Your task to perform on an android device: Open Maps and search for coffee Image 0: 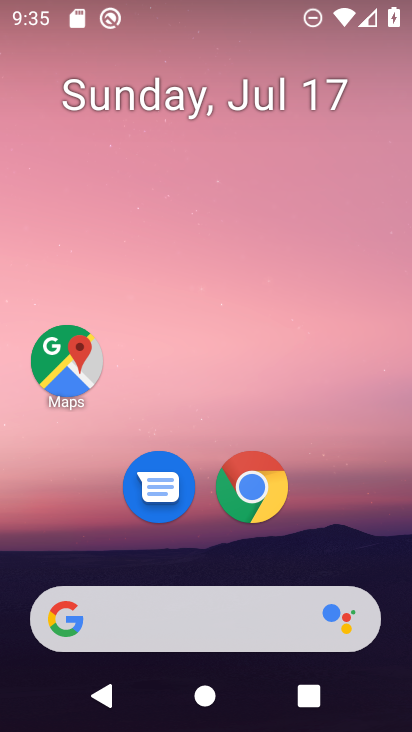
Step 0: press home button
Your task to perform on an android device: Open Maps and search for coffee Image 1: 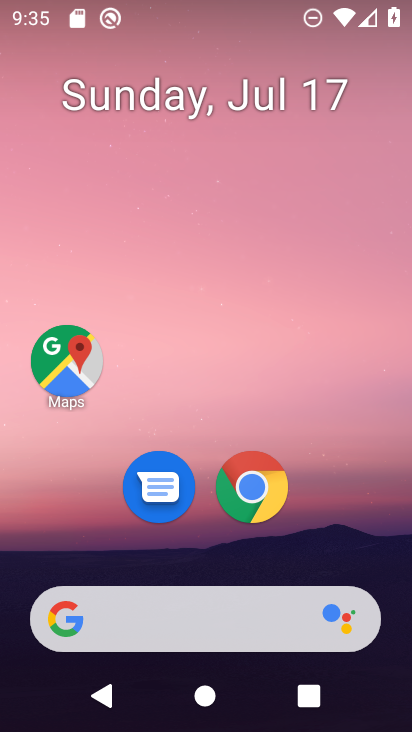
Step 1: drag from (333, 561) to (289, 2)
Your task to perform on an android device: Open Maps and search for coffee Image 2: 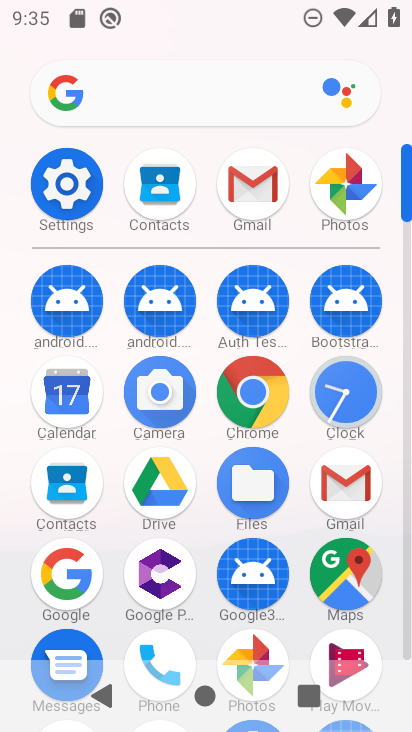
Step 2: click (355, 579)
Your task to perform on an android device: Open Maps and search for coffee Image 3: 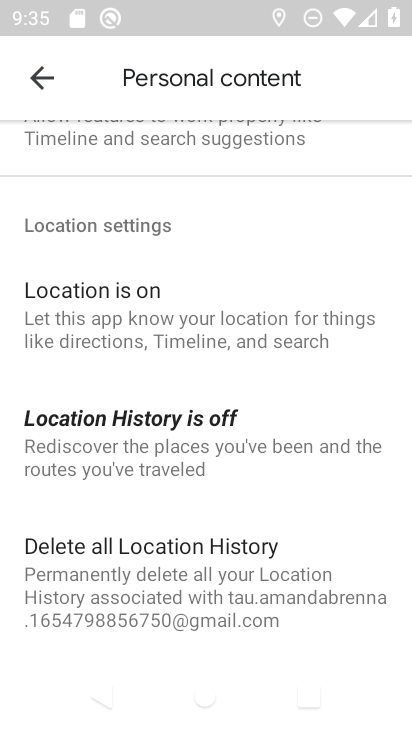
Step 3: click (16, 66)
Your task to perform on an android device: Open Maps and search for coffee Image 4: 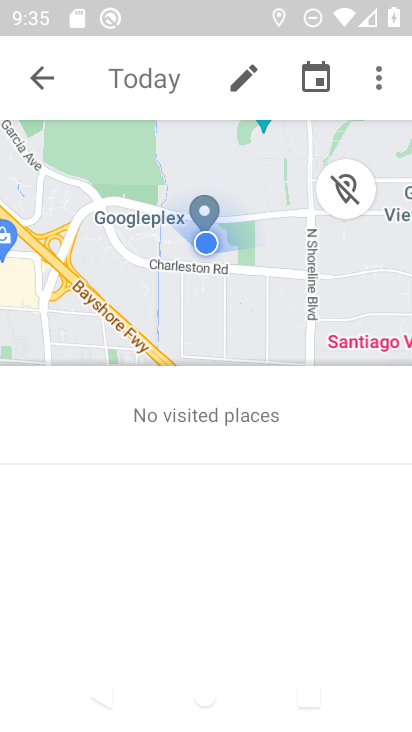
Step 4: click (172, 81)
Your task to perform on an android device: Open Maps and search for coffee Image 5: 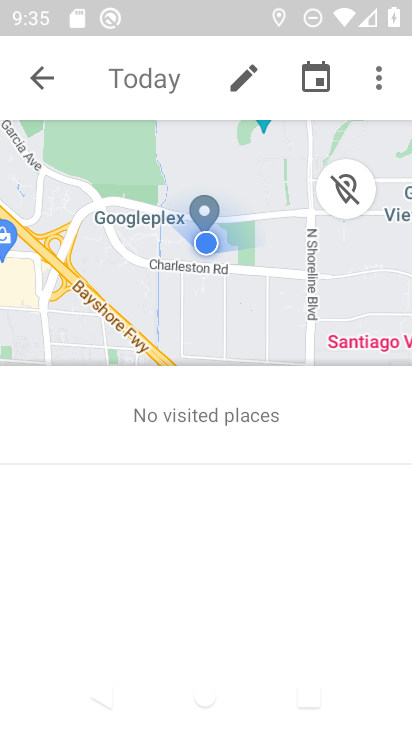
Step 5: click (180, 79)
Your task to perform on an android device: Open Maps and search for coffee Image 6: 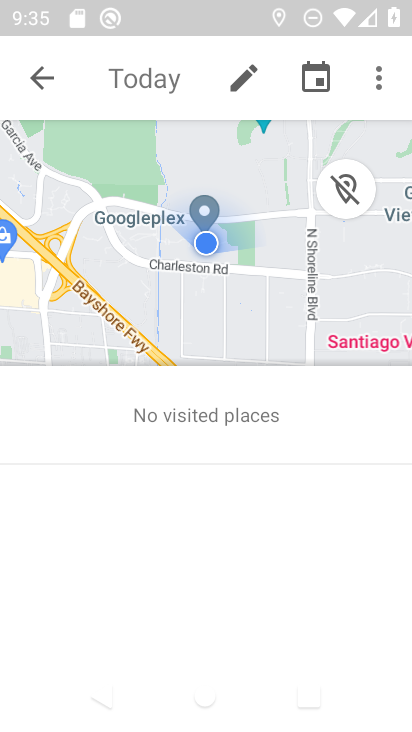
Step 6: click (132, 73)
Your task to perform on an android device: Open Maps and search for coffee Image 7: 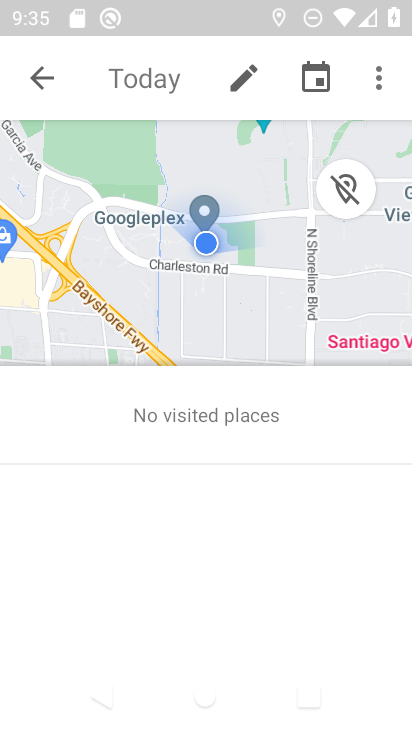
Step 7: click (31, 80)
Your task to perform on an android device: Open Maps and search for coffee Image 8: 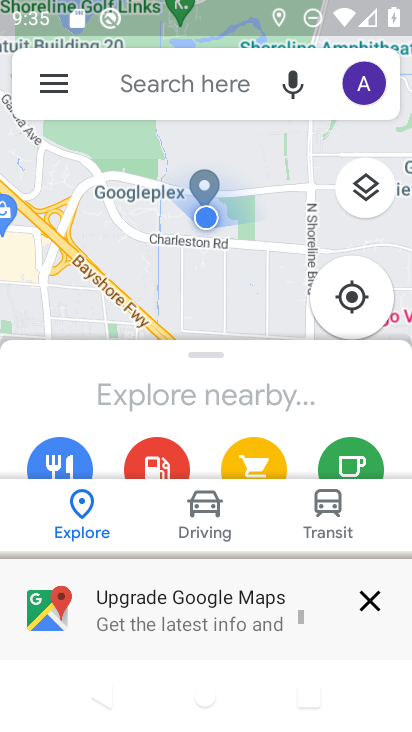
Step 8: click (237, 62)
Your task to perform on an android device: Open Maps and search for coffee Image 9: 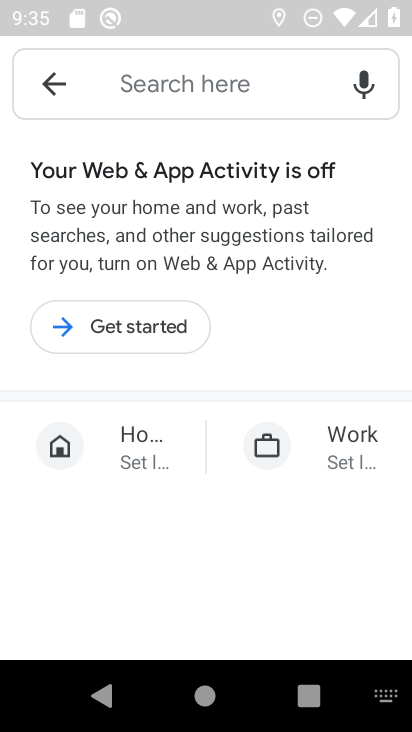
Step 9: click (146, 336)
Your task to perform on an android device: Open Maps and search for coffee Image 10: 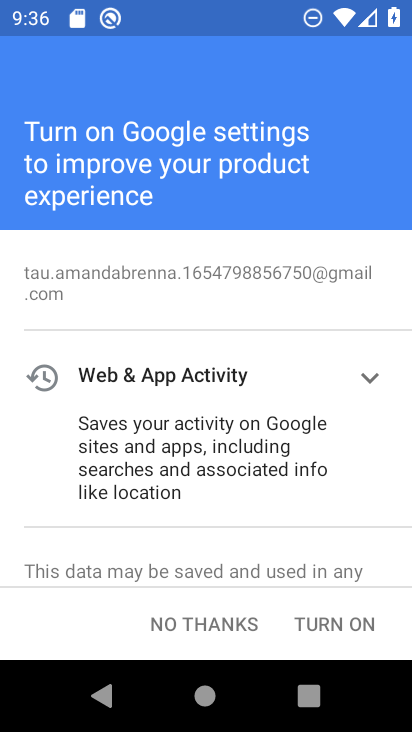
Step 10: click (353, 608)
Your task to perform on an android device: Open Maps and search for coffee Image 11: 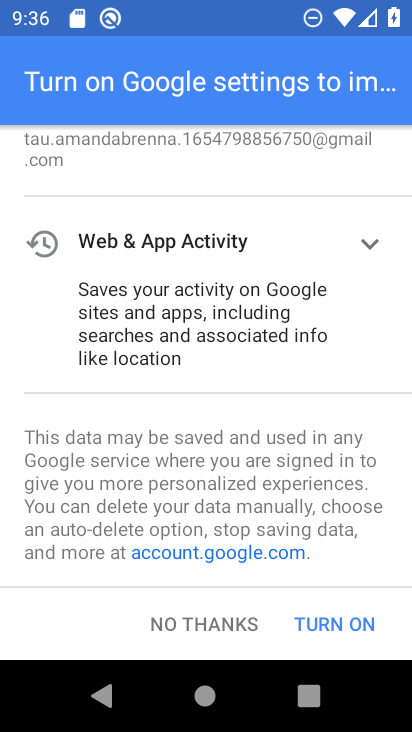
Step 11: click (310, 628)
Your task to perform on an android device: Open Maps and search for coffee Image 12: 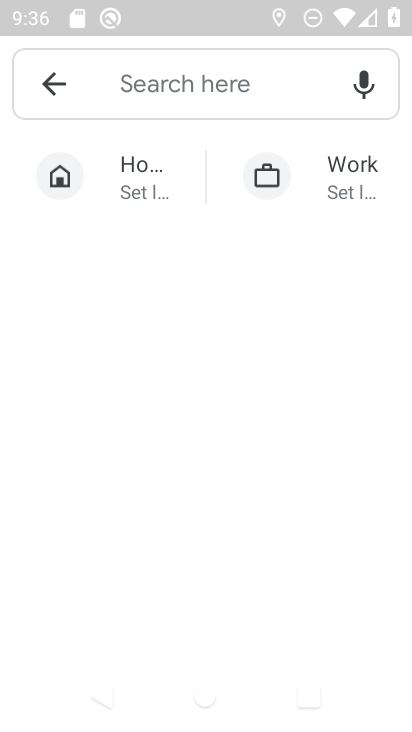
Step 12: click (227, 91)
Your task to perform on an android device: Open Maps and search for coffee Image 13: 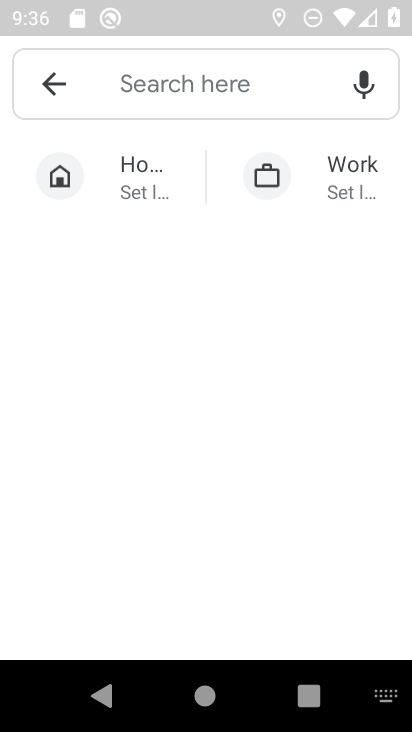
Step 13: type "coffee"
Your task to perform on an android device: Open Maps and search for coffee Image 14: 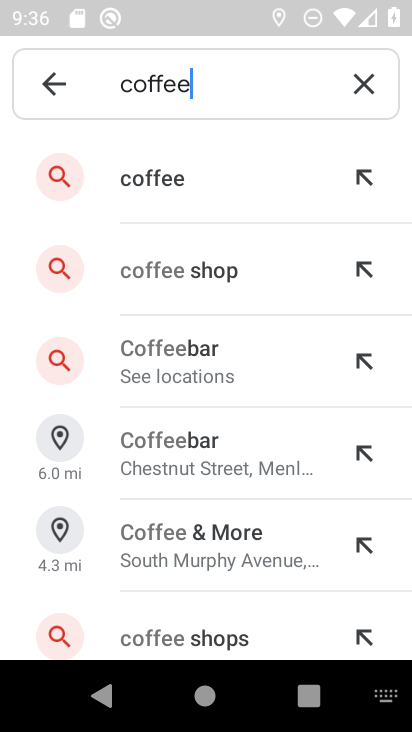
Step 14: click (133, 184)
Your task to perform on an android device: Open Maps and search for coffee Image 15: 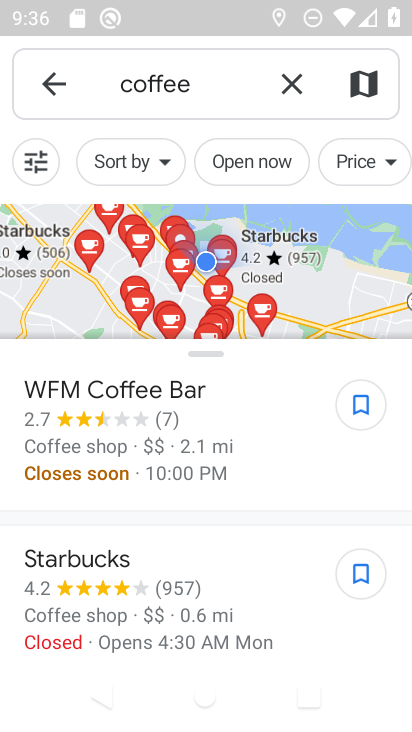
Step 15: task complete